Your task to perform on an android device: turn off notifications in google photos Image 0: 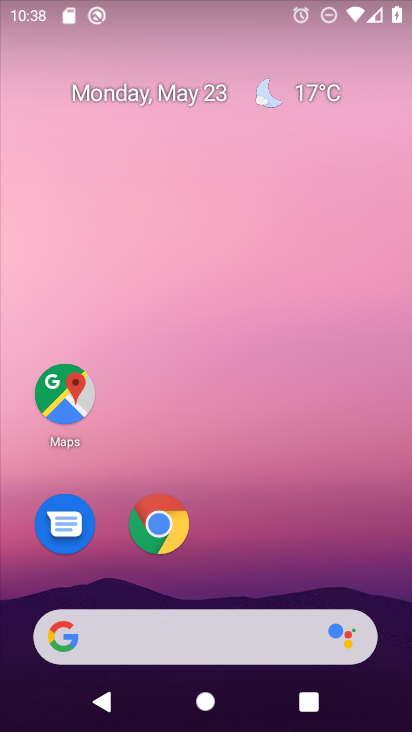
Step 0: drag from (205, 566) to (240, 172)
Your task to perform on an android device: turn off notifications in google photos Image 1: 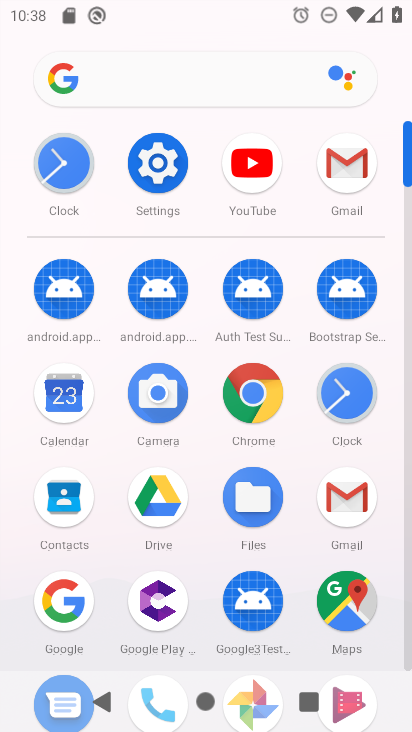
Step 1: drag from (183, 602) to (196, 309)
Your task to perform on an android device: turn off notifications in google photos Image 2: 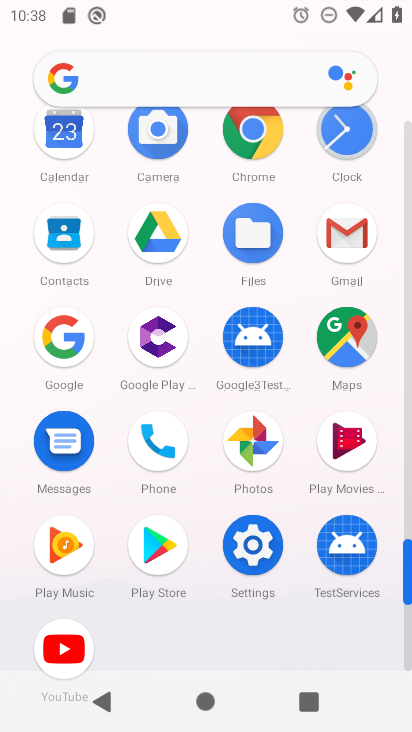
Step 2: click (245, 452)
Your task to perform on an android device: turn off notifications in google photos Image 3: 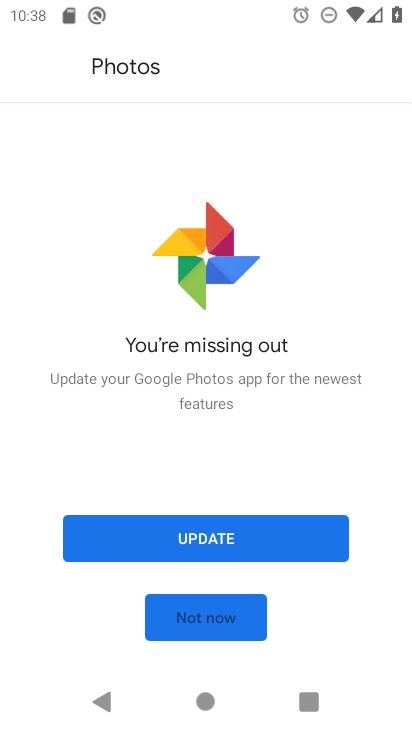
Step 3: click (241, 616)
Your task to perform on an android device: turn off notifications in google photos Image 4: 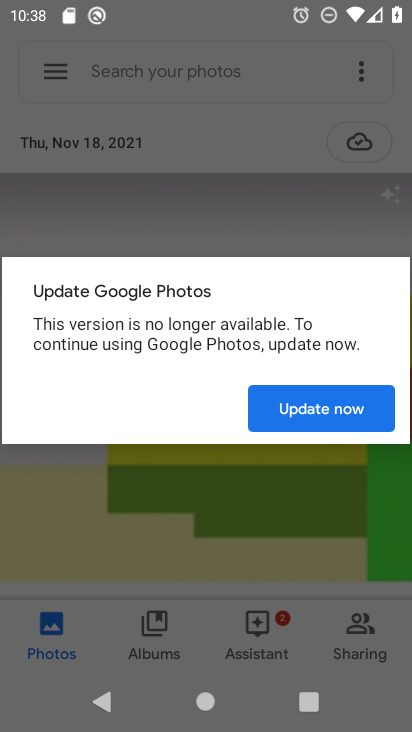
Step 4: click (316, 406)
Your task to perform on an android device: turn off notifications in google photos Image 5: 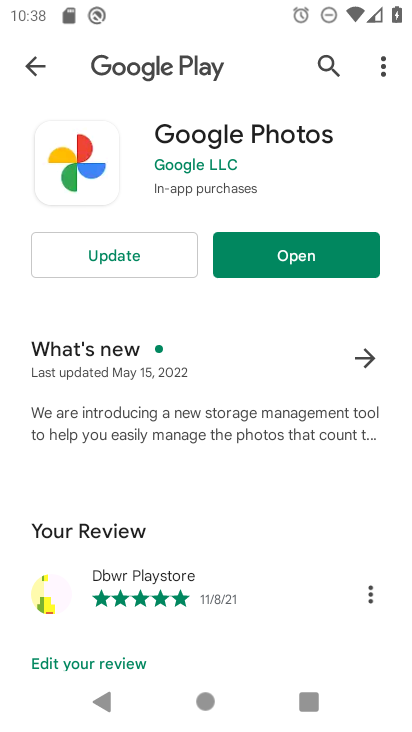
Step 5: click (288, 250)
Your task to perform on an android device: turn off notifications in google photos Image 6: 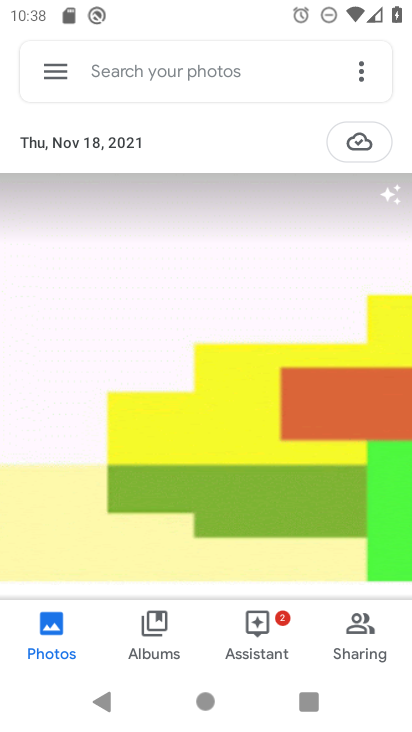
Step 6: click (55, 84)
Your task to perform on an android device: turn off notifications in google photos Image 7: 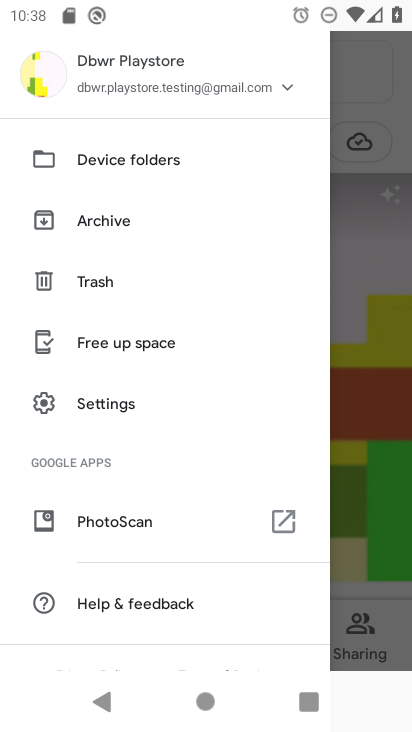
Step 7: click (118, 409)
Your task to perform on an android device: turn off notifications in google photos Image 8: 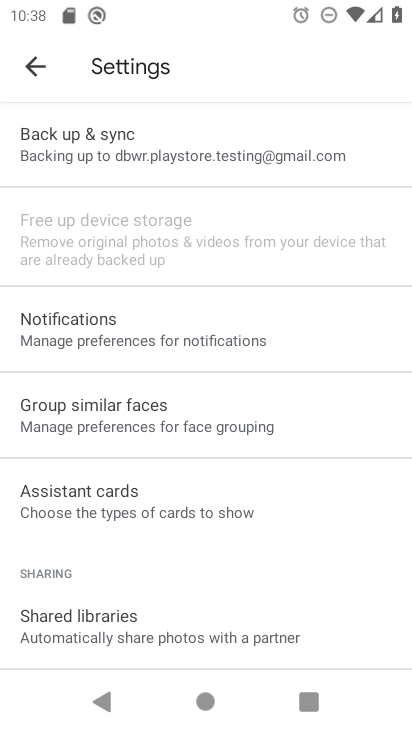
Step 8: click (157, 332)
Your task to perform on an android device: turn off notifications in google photos Image 9: 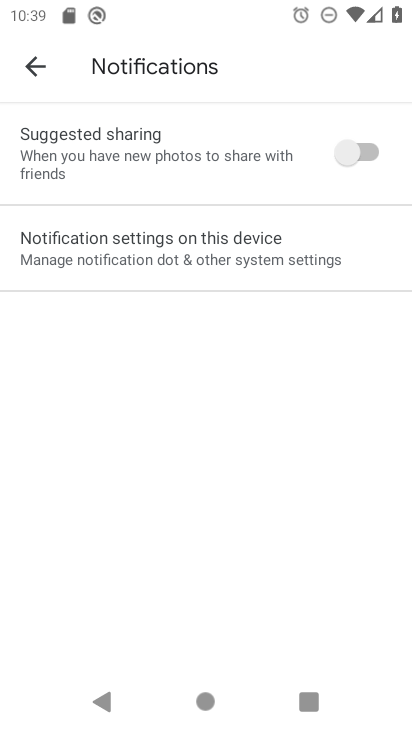
Step 9: click (88, 235)
Your task to perform on an android device: turn off notifications in google photos Image 10: 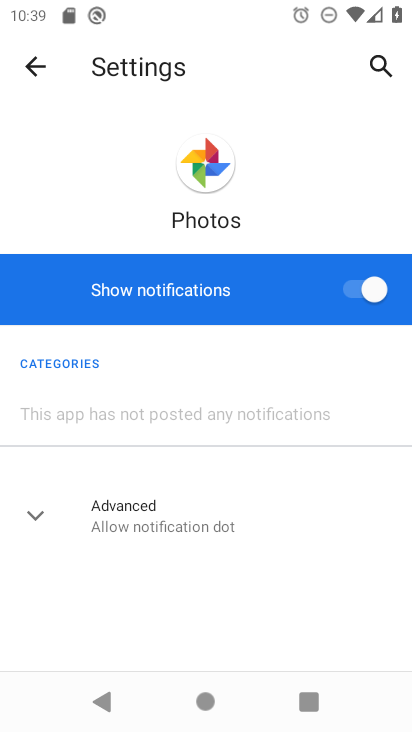
Step 10: click (343, 288)
Your task to perform on an android device: turn off notifications in google photos Image 11: 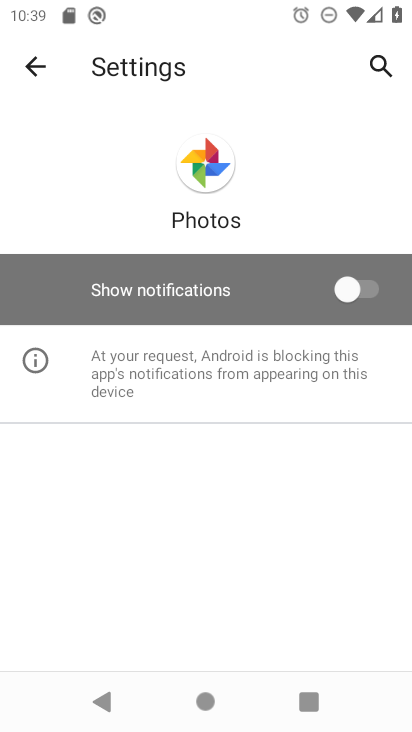
Step 11: task complete